Your task to perform on an android device: change notifications settings Image 0: 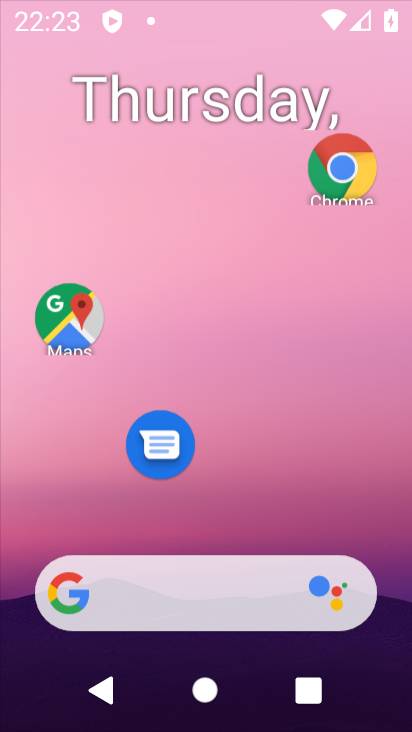
Step 0: click (262, 322)
Your task to perform on an android device: change notifications settings Image 1: 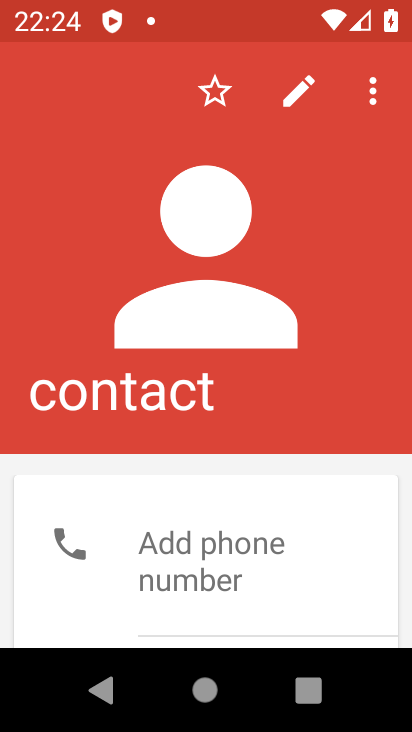
Step 1: press back button
Your task to perform on an android device: change notifications settings Image 2: 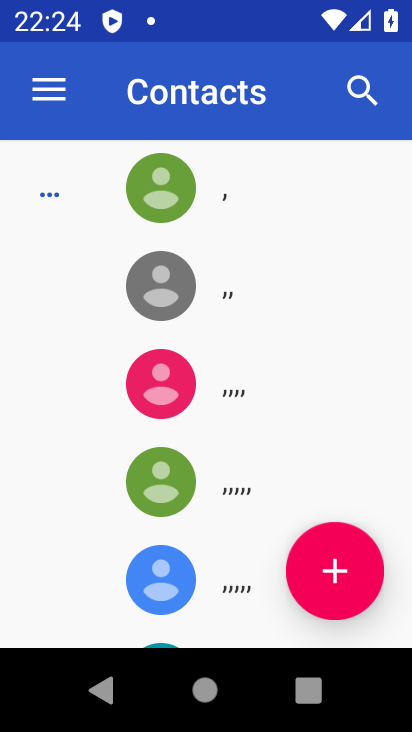
Step 2: drag from (201, 556) to (365, 1)
Your task to perform on an android device: change notifications settings Image 3: 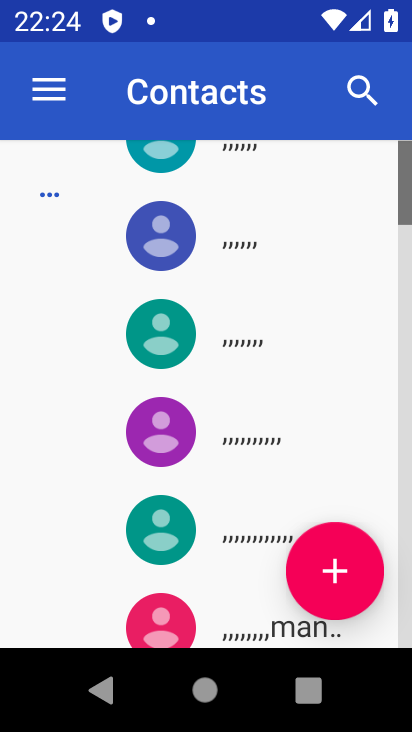
Step 3: press home button
Your task to perform on an android device: change notifications settings Image 4: 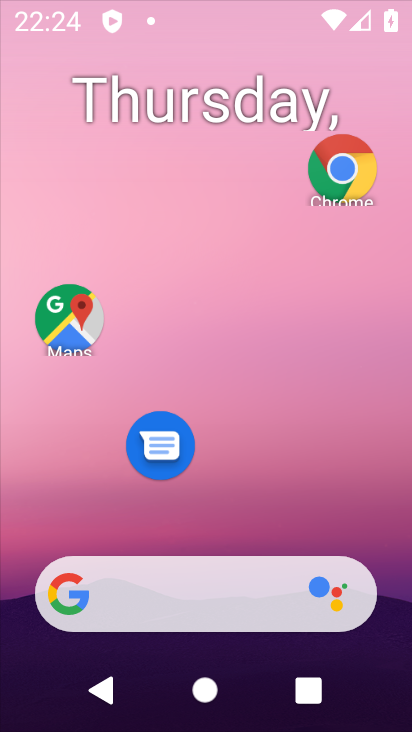
Step 4: drag from (211, 587) to (194, 151)
Your task to perform on an android device: change notifications settings Image 5: 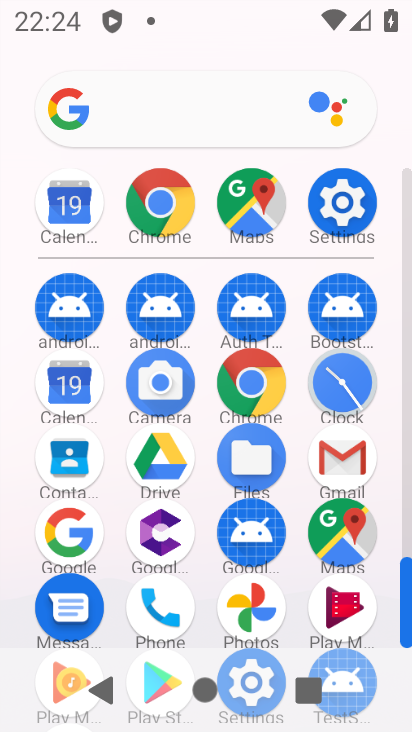
Step 5: click (329, 201)
Your task to perform on an android device: change notifications settings Image 6: 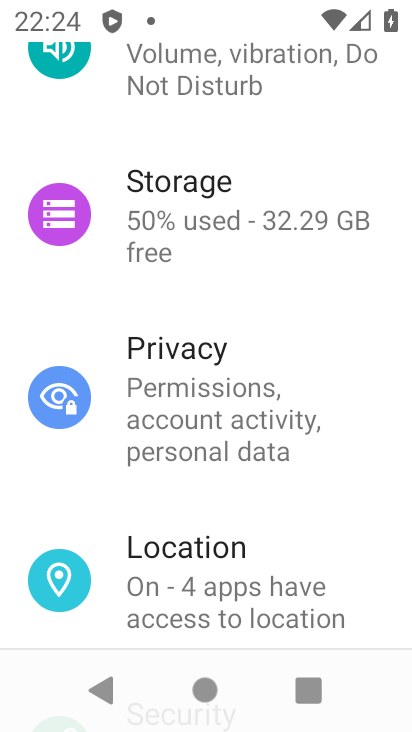
Step 6: drag from (228, 455) to (276, 717)
Your task to perform on an android device: change notifications settings Image 7: 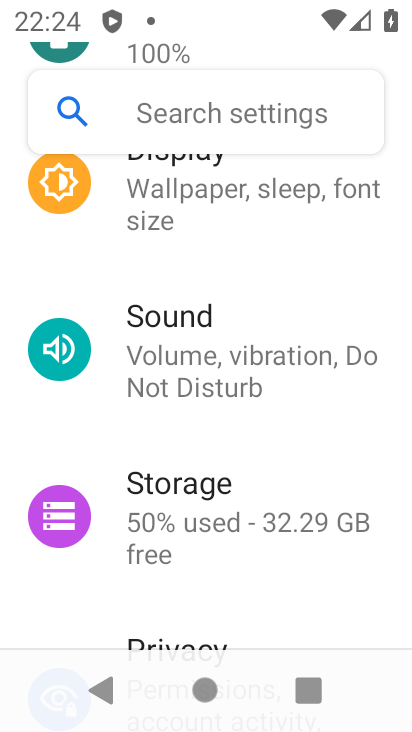
Step 7: drag from (226, 548) to (306, 27)
Your task to perform on an android device: change notifications settings Image 8: 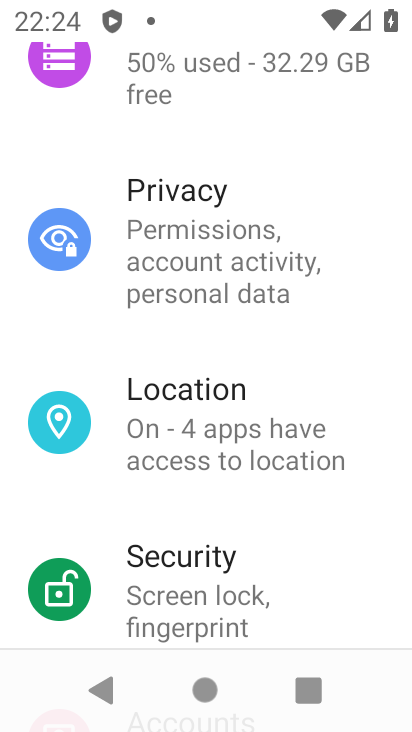
Step 8: drag from (180, 565) to (263, 132)
Your task to perform on an android device: change notifications settings Image 9: 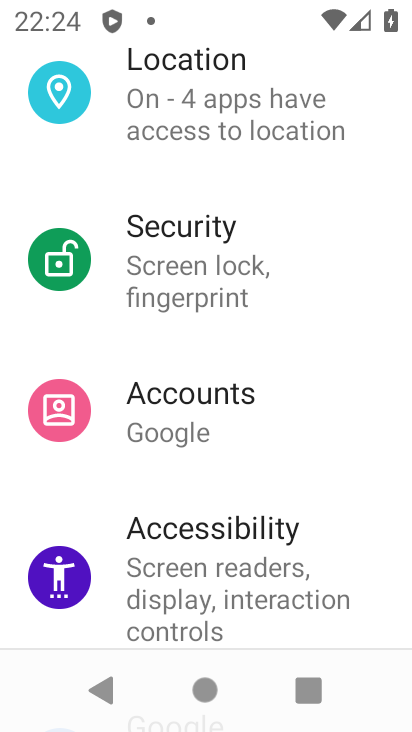
Step 9: drag from (203, 190) to (287, 726)
Your task to perform on an android device: change notifications settings Image 10: 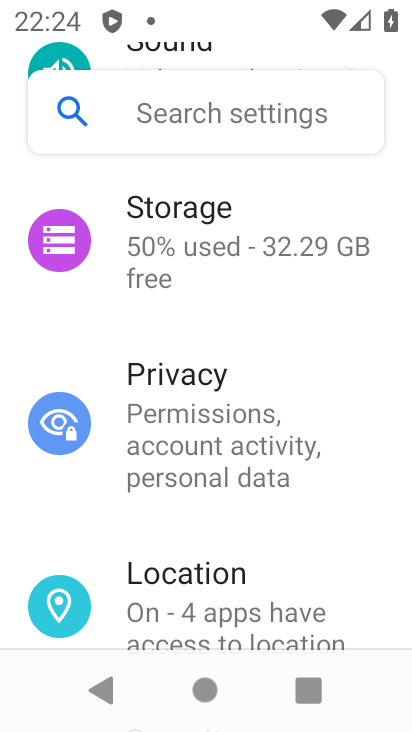
Step 10: drag from (197, 275) to (344, 726)
Your task to perform on an android device: change notifications settings Image 11: 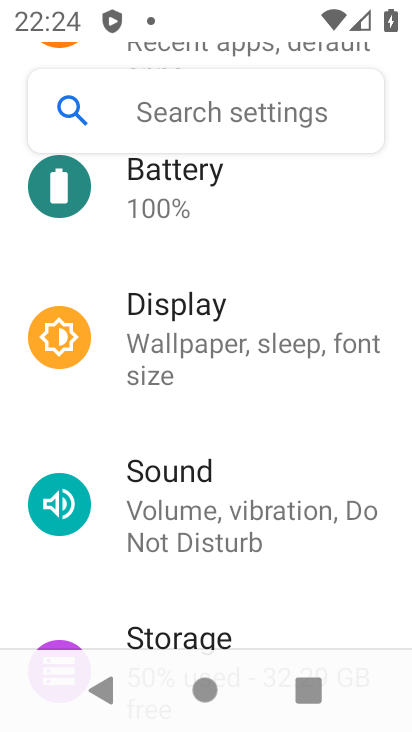
Step 11: drag from (226, 281) to (313, 730)
Your task to perform on an android device: change notifications settings Image 12: 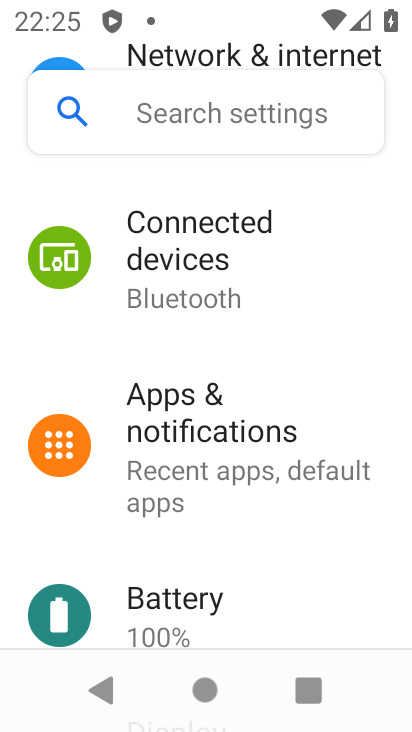
Step 12: click (201, 450)
Your task to perform on an android device: change notifications settings Image 13: 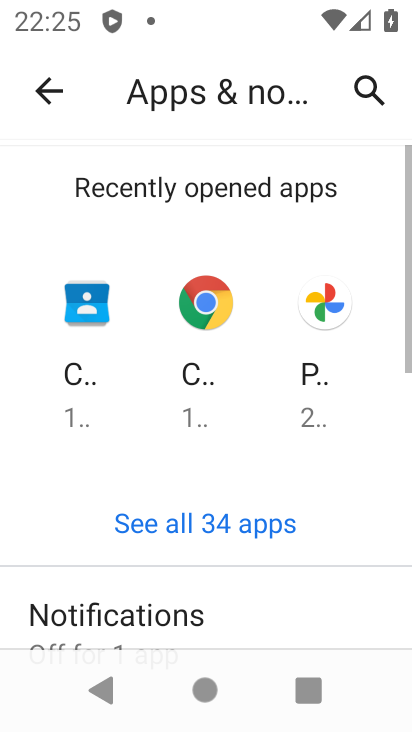
Step 13: click (176, 617)
Your task to perform on an android device: change notifications settings Image 14: 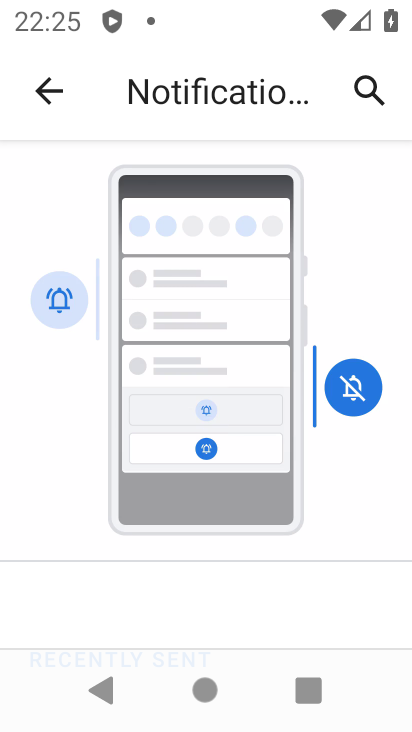
Step 14: drag from (239, 556) to (291, 43)
Your task to perform on an android device: change notifications settings Image 15: 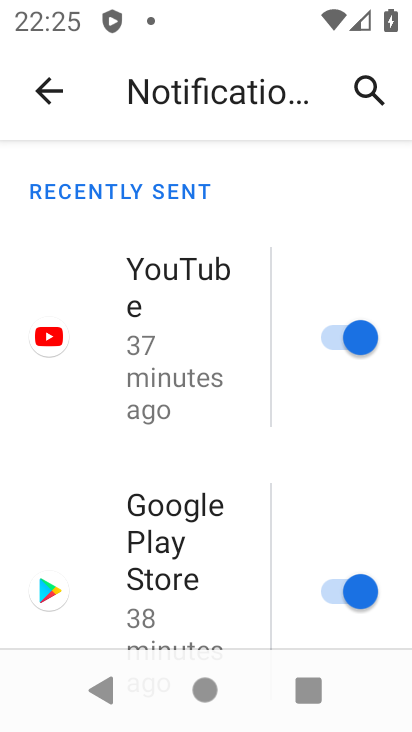
Step 15: drag from (212, 616) to (172, 107)
Your task to perform on an android device: change notifications settings Image 16: 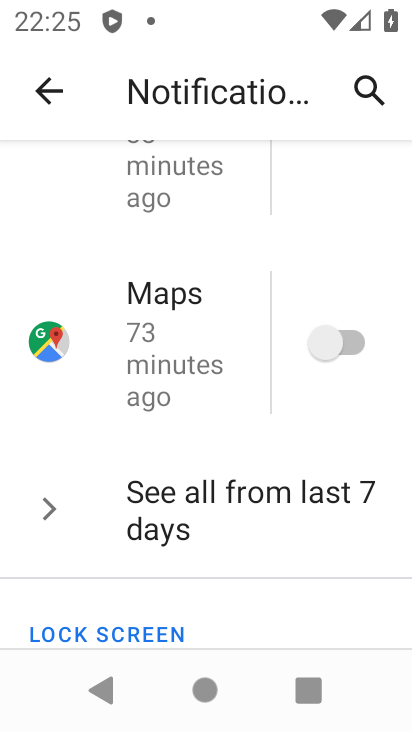
Step 16: drag from (239, 554) to (275, 263)
Your task to perform on an android device: change notifications settings Image 17: 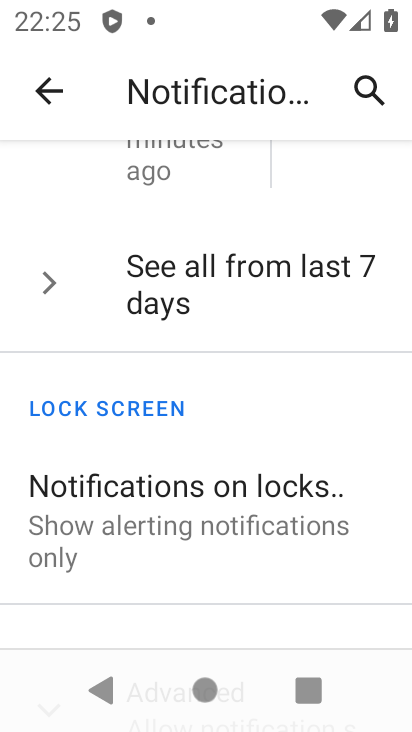
Step 17: drag from (262, 574) to (275, 293)
Your task to perform on an android device: change notifications settings Image 18: 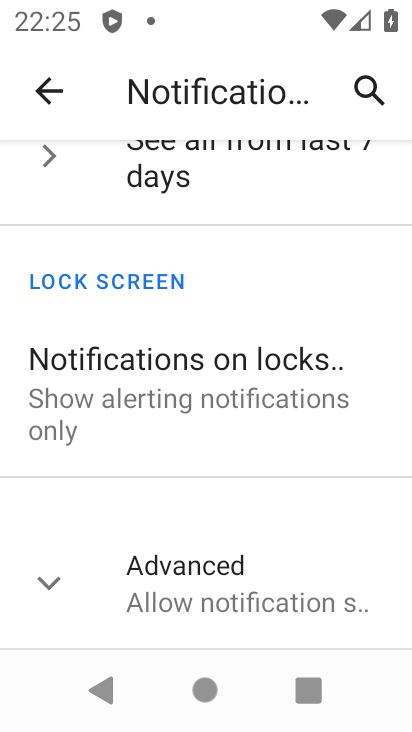
Step 18: drag from (211, 571) to (293, 245)
Your task to perform on an android device: change notifications settings Image 19: 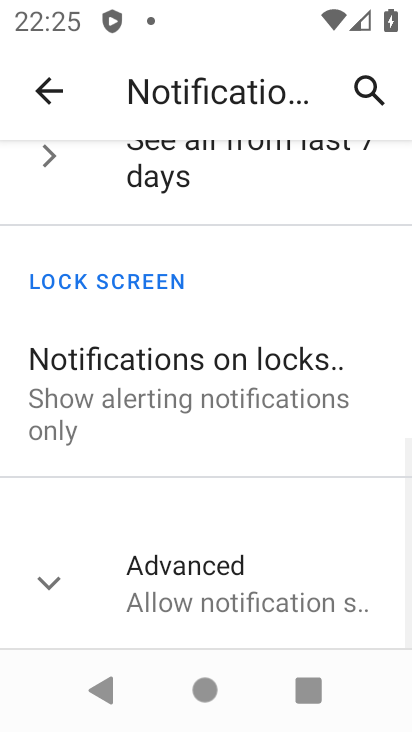
Step 19: drag from (291, 280) to (311, 683)
Your task to perform on an android device: change notifications settings Image 20: 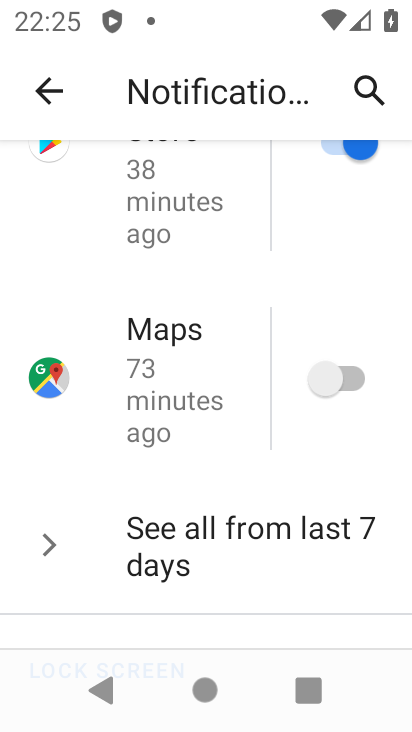
Step 20: drag from (224, 350) to (276, 721)
Your task to perform on an android device: change notifications settings Image 21: 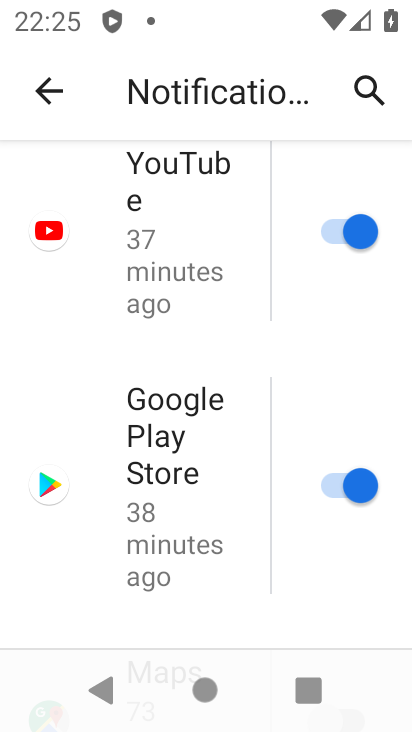
Step 21: drag from (222, 278) to (262, 687)
Your task to perform on an android device: change notifications settings Image 22: 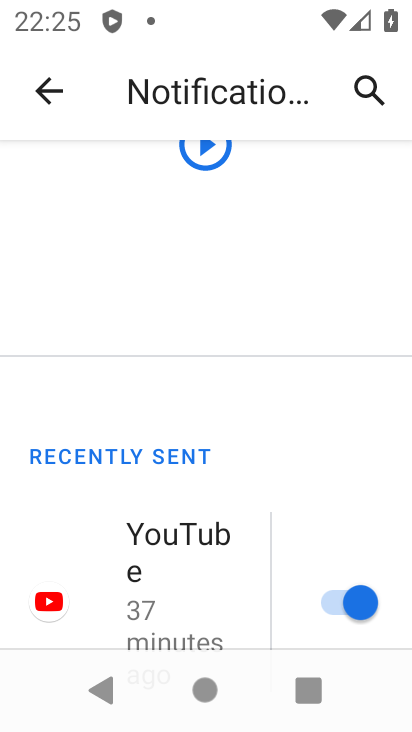
Step 22: drag from (217, 580) to (294, 215)
Your task to perform on an android device: change notifications settings Image 23: 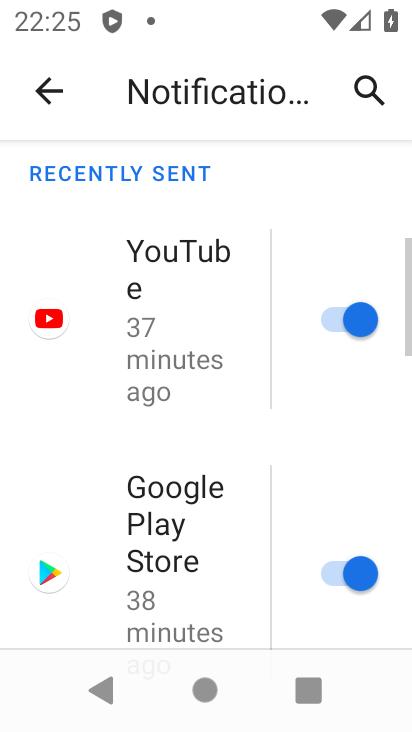
Step 23: drag from (291, 225) to (221, 665)
Your task to perform on an android device: change notifications settings Image 24: 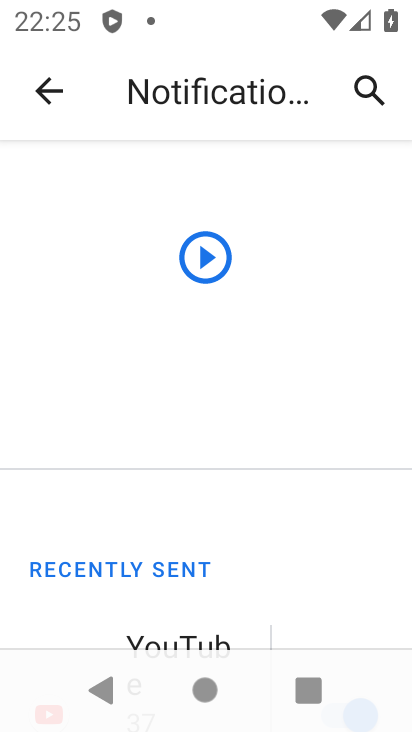
Step 24: drag from (235, 561) to (266, 357)
Your task to perform on an android device: change notifications settings Image 25: 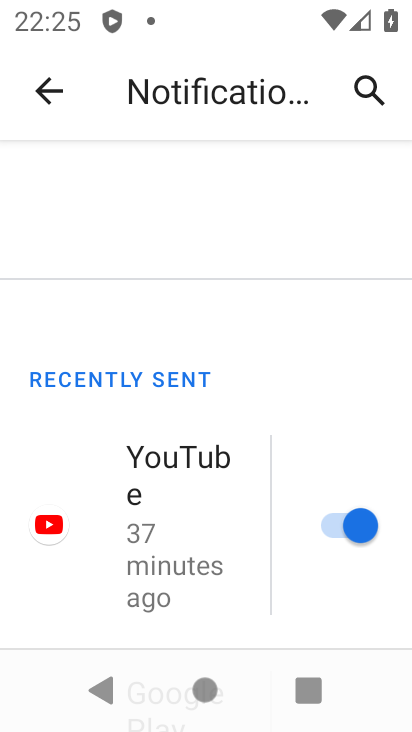
Step 25: drag from (230, 630) to (282, 265)
Your task to perform on an android device: change notifications settings Image 26: 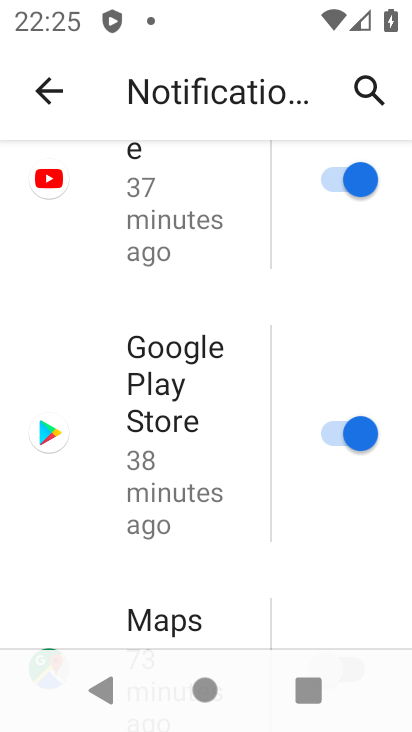
Step 26: drag from (191, 313) to (299, 541)
Your task to perform on an android device: change notifications settings Image 27: 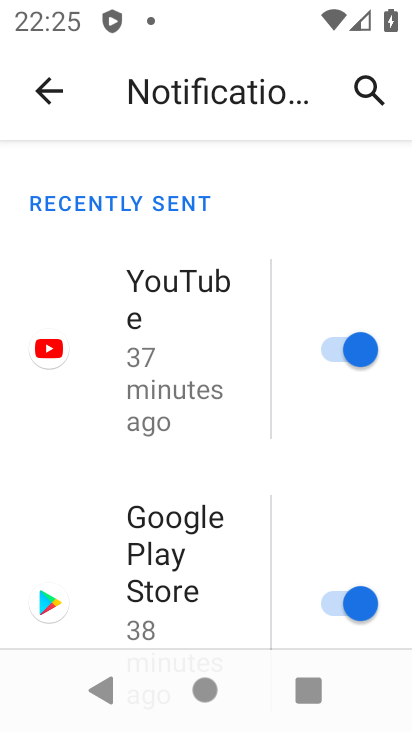
Step 27: click (336, 344)
Your task to perform on an android device: change notifications settings Image 28: 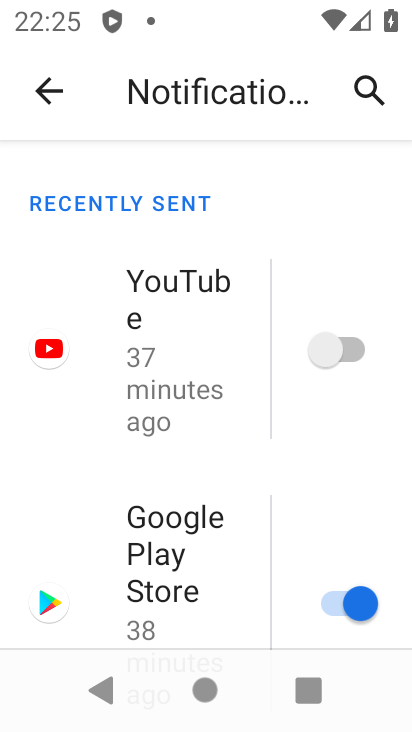
Step 28: task complete